Your task to perform on an android device: turn off picture-in-picture Image 0: 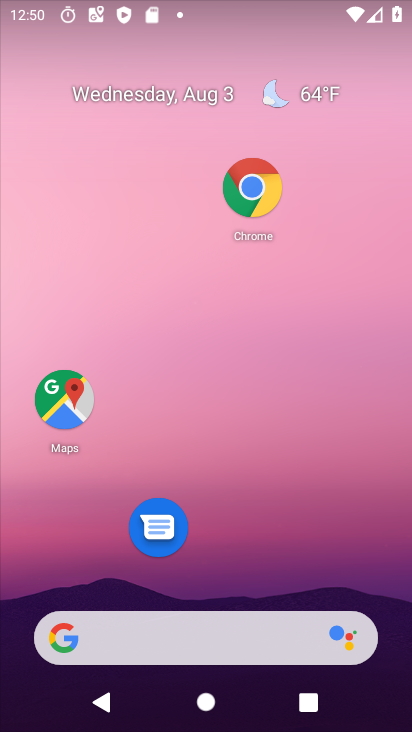
Step 0: click (263, 193)
Your task to perform on an android device: turn off picture-in-picture Image 1: 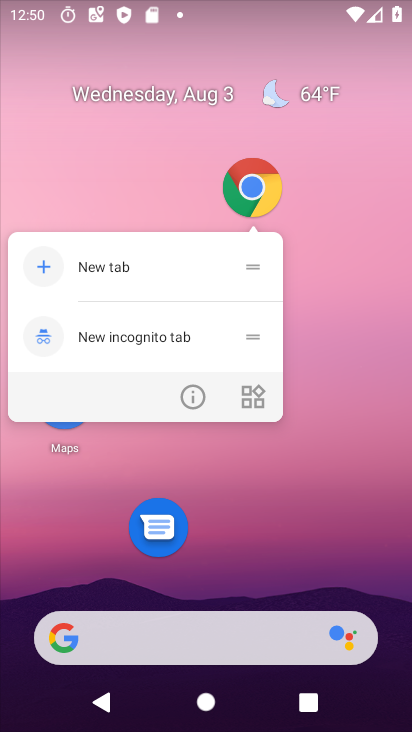
Step 1: click (194, 399)
Your task to perform on an android device: turn off picture-in-picture Image 2: 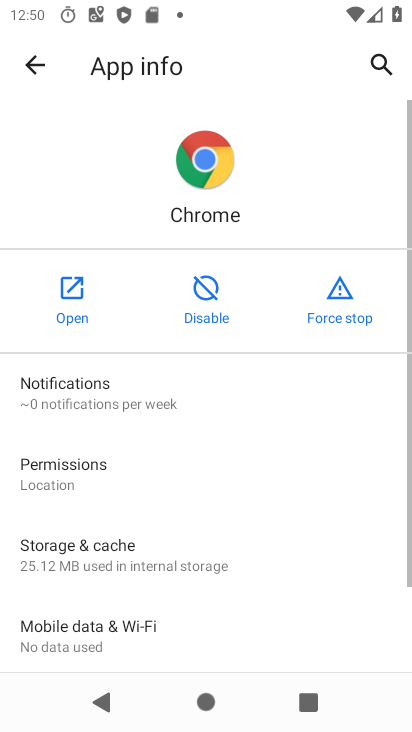
Step 2: drag from (145, 566) to (149, 203)
Your task to perform on an android device: turn off picture-in-picture Image 3: 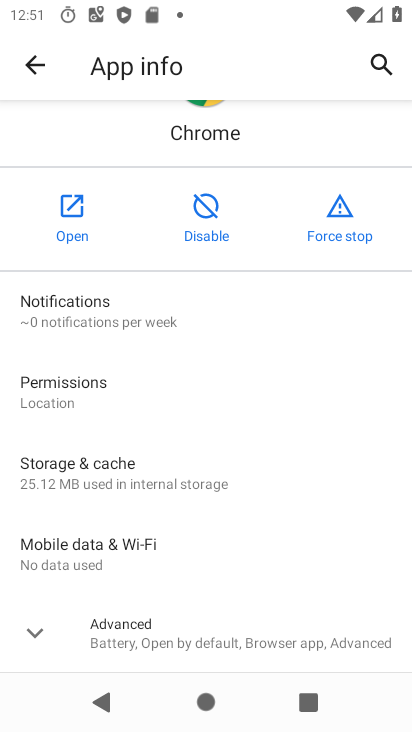
Step 3: click (96, 631)
Your task to perform on an android device: turn off picture-in-picture Image 4: 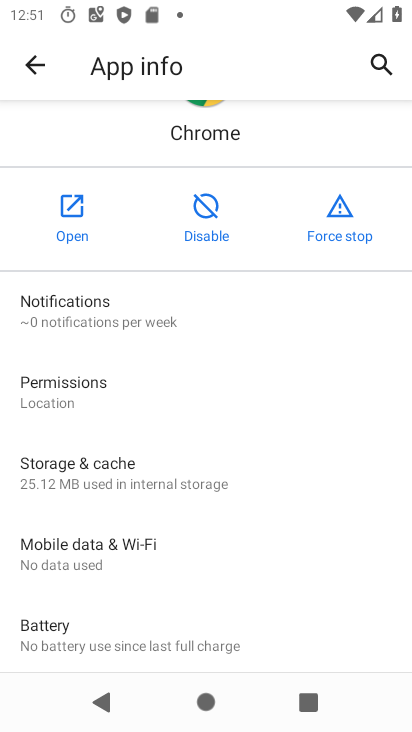
Step 4: drag from (154, 548) to (153, 345)
Your task to perform on an android device: turn off picture-in-picture Image 5: 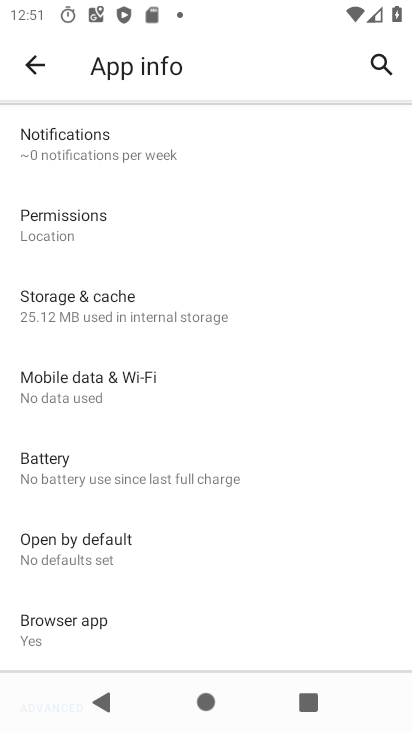
Step 5: drag from (82, 626) to (85, 224)
Your task to perform on an android device: turn off picture-in-picture Image 6: 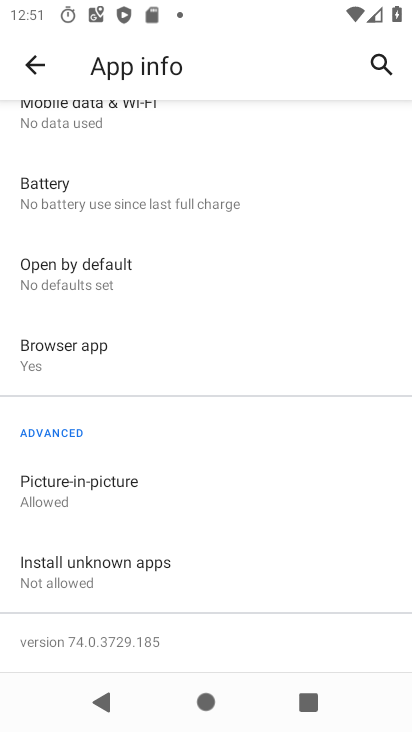
Step 6: click (51, 492)
Your task to perform on an android device: turn off picture-in-picture Image 7: 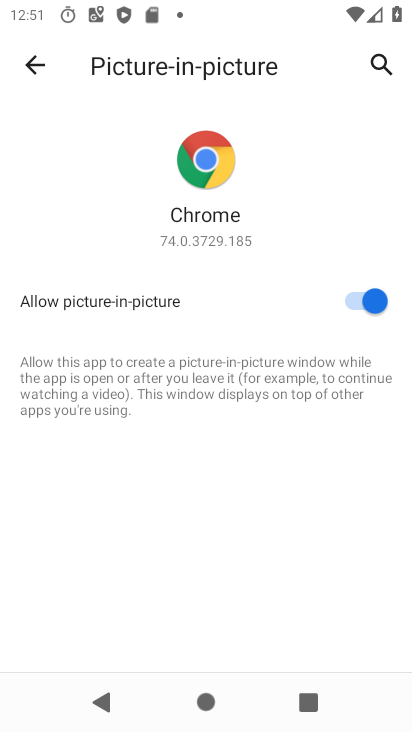
Step 7: click (324, 305)
Your task to perform on an android device: turn off picture-in-picture Image 8: 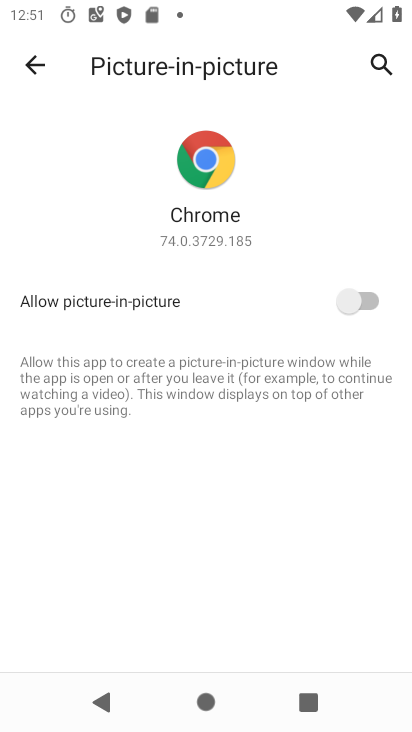
Step 8: task complete